Your task to perform on an android device: snooze an email in the gmail app Image 0: 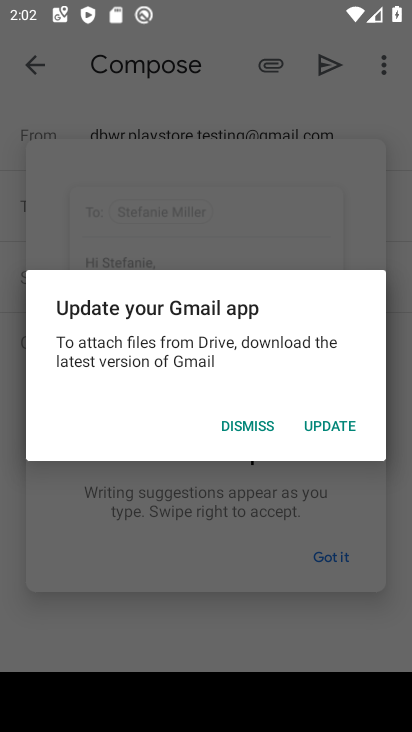
Step 0: press home button
Your task to perform on an android device: snooze an email in the gmail app Image 1: 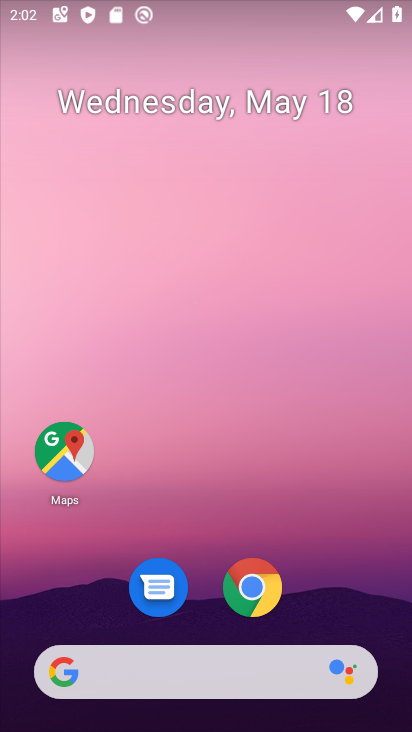
Step 1: drag from (342, 538) to (324, 15)
Your task to perform on an android device: snooze an email in the gmail app Image 2: 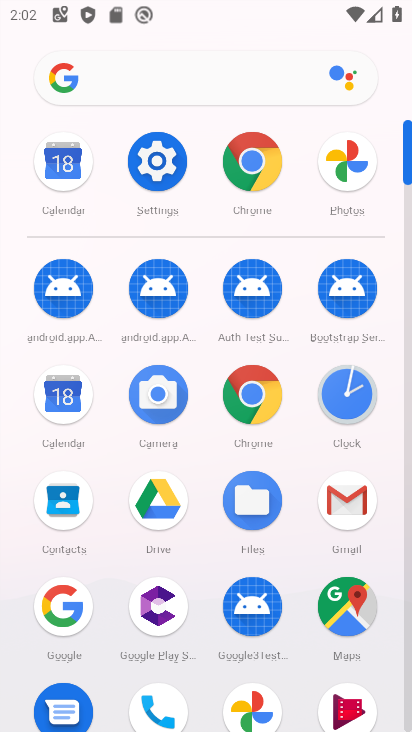
Step 2: click (350, 511)
Your task to perform on an android device: snooze an email in the gmail app Image 3: 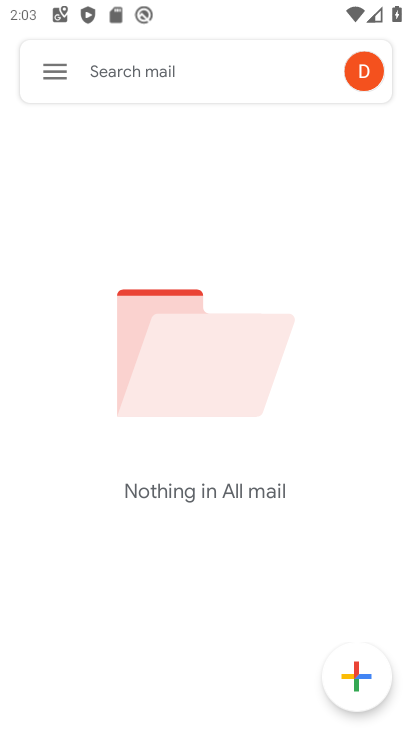
Step 3: task complete